Your task to perform on an android device: Go to eBay Image 0: 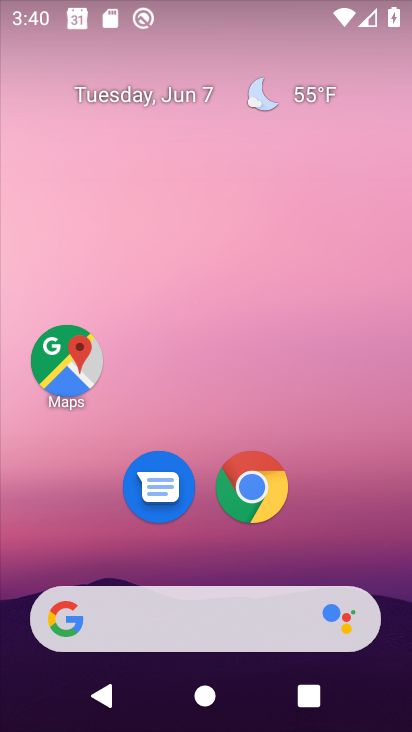
Step 0: drag from (212, 553) to (235, 38)
Your task to perform on an android device: Go to eBay Image 1: 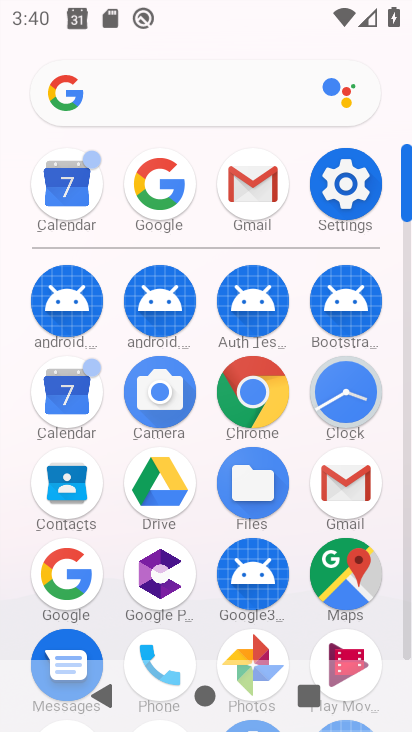
Step 1: click (153, 187)
Your task to perform on an android device: Go to eBay Image 2: 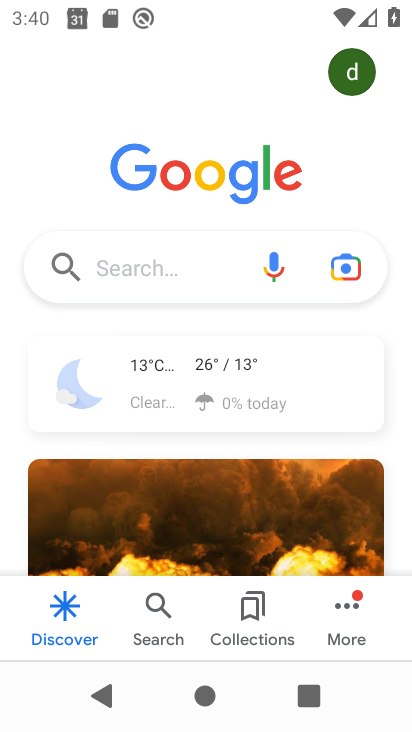
Step 2: click (188, 267)
Your task to perform on an android device: Go to eBay Image 3: 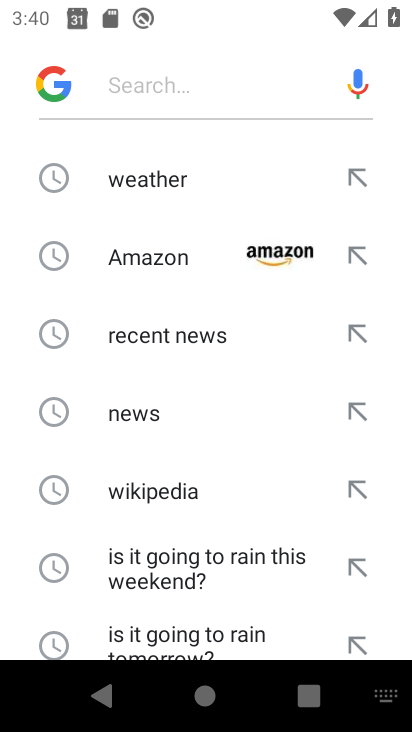
Step 3: drag from (241, 469) to (196, 196)
Your task to perform on an android device: Go to eBay Image 4: 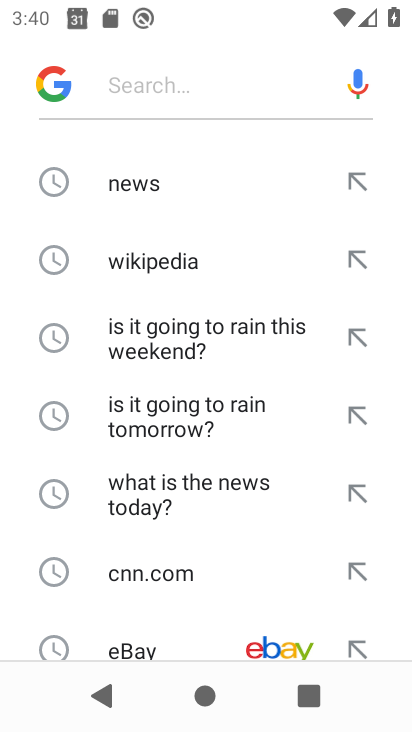
Step 4: drag from (258, 571) to (222, 346)
Your task to perform on an android device: Go to eBay Image 5: 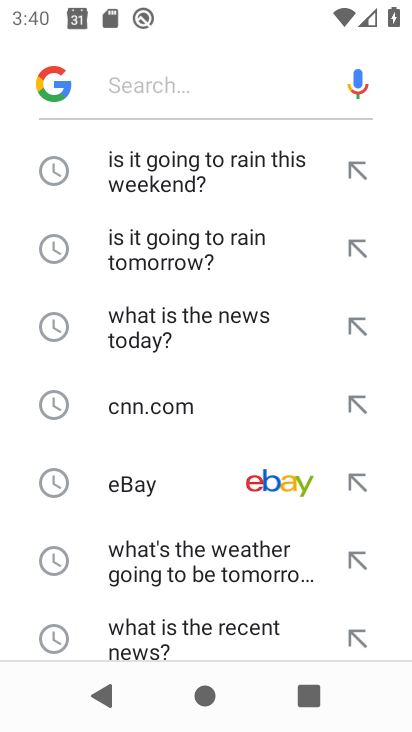
Step 5: click (130, 477)
Your task to perform on an android device: Go to eBay Image 6: 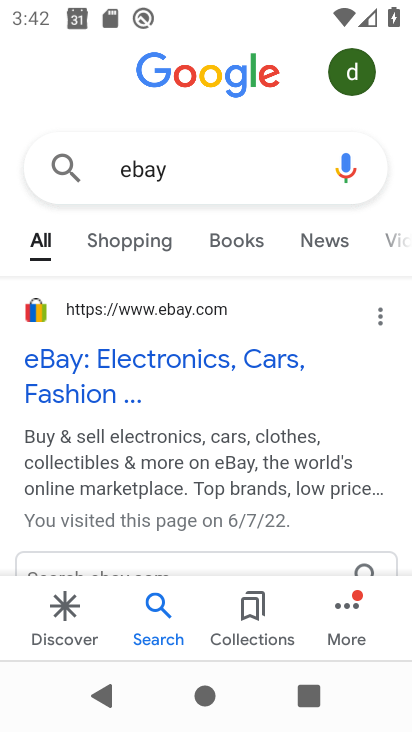
Step 6: task complete